Your task to perform on an android device: create a new album in the google photos Image 0: 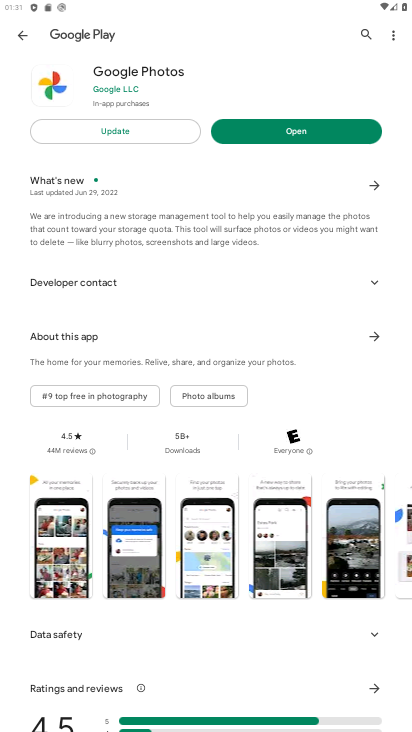
Step 0: press home button
Your task to perform on an android device: create a new album in the google photos Image 1: 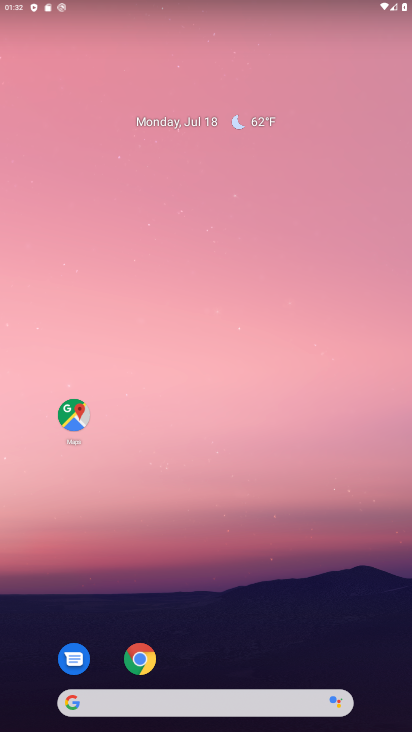
Step 1: drag from (286, 609) to (220, 199)
Your task to perform on an android device: create a new album in the google photos Image 2: 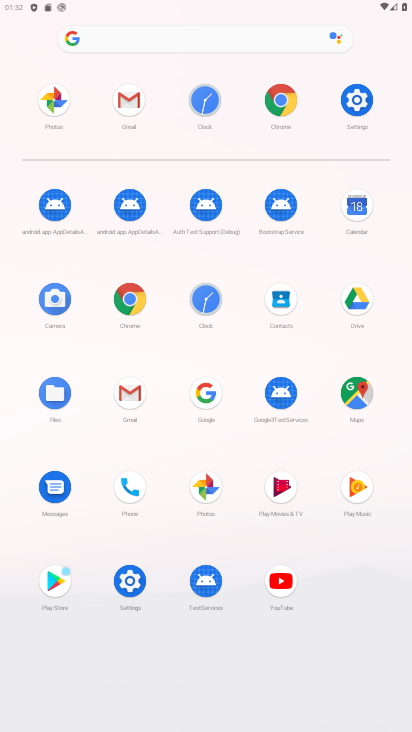
Step 2: click (185, 488)
Your task to perform on an android device: create a new album in the google photos Image 3: 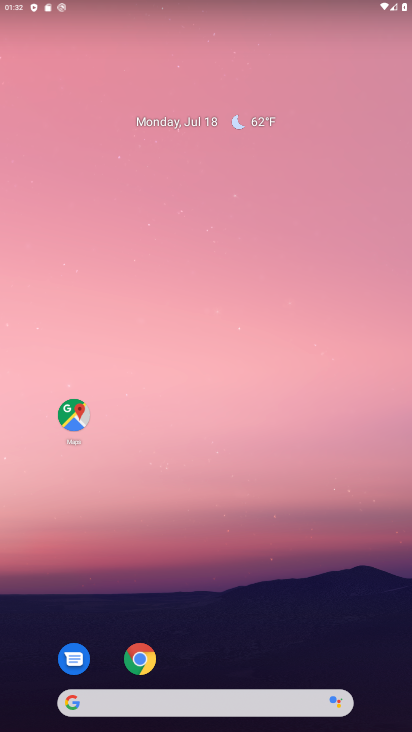
Step 3: drag from (263, 533) to (224, 223)
Your task to perform on an android device: create a new album in the google photos Image 4: 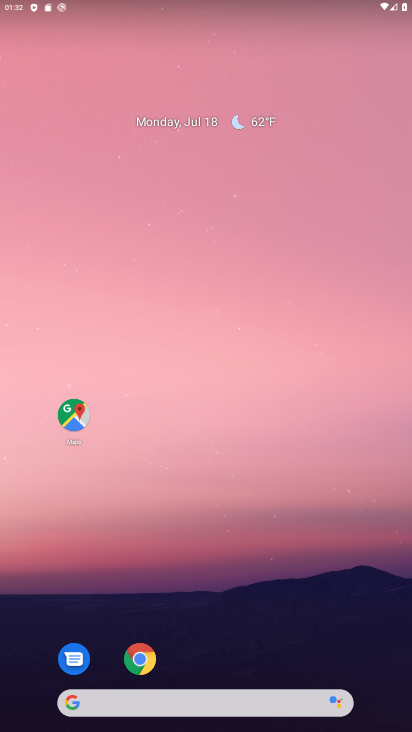
Step 4: drag from (308, 558) to (273, 67)
Your task to perform on an android device: create a new album in the google photos Image 5: 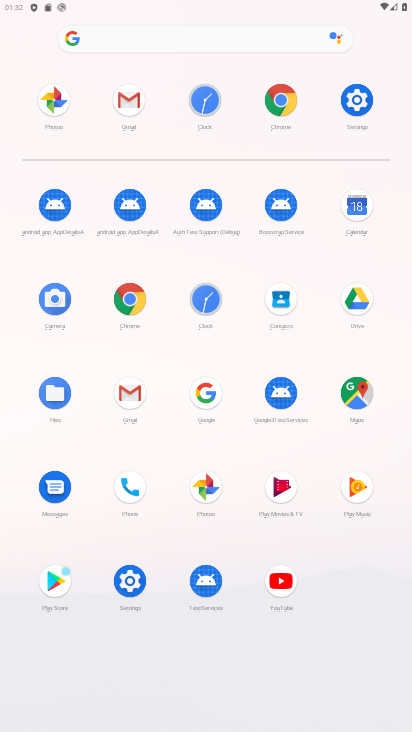
Step 5: click (210, 483)
Your task to perform on an android device: create a new album in the google photos Image 6: 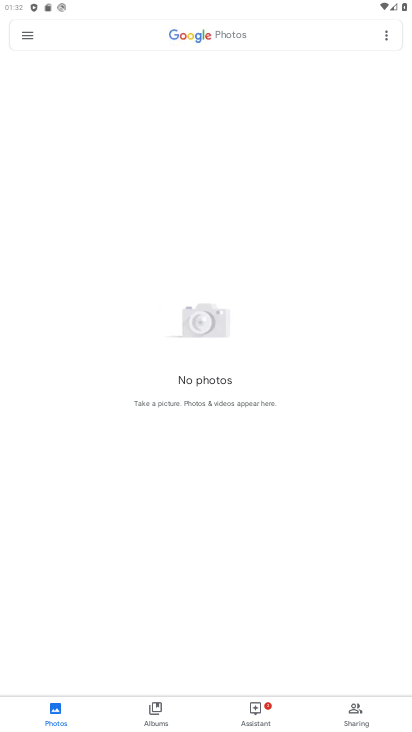
Step 6: click (168, 718)
Your task to perform on an android device: create a new album in the google photos Image 7: 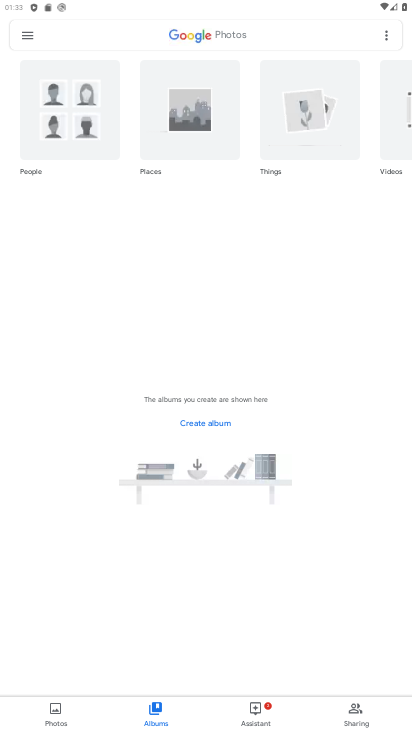
Step 7: click (192, 425)
Your task to perform on an android device: create a new album in the google photos Image 8: 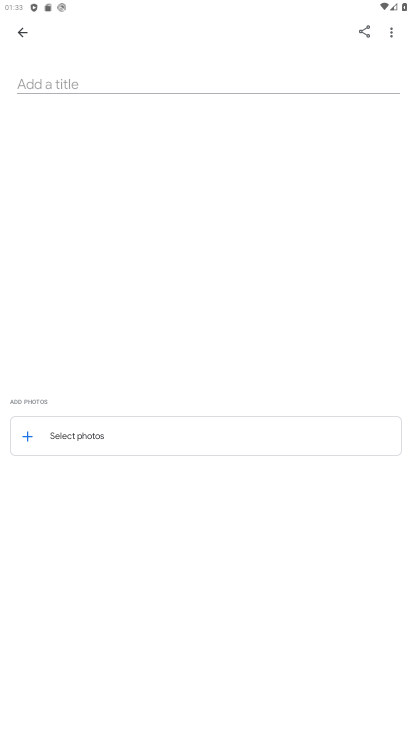
Step 8: click (168, 77)
Your task to perform on an android device: create a new album in the google photos Image 9: 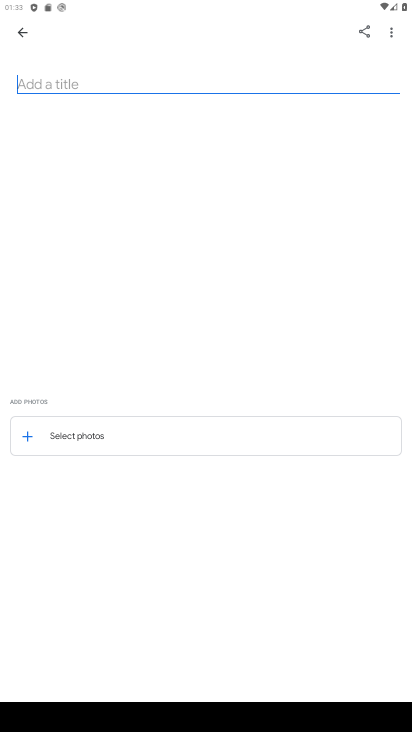
Step 9: type "hame allow"
Your task to perform on an android device: create a new album in the google photos Image 10: 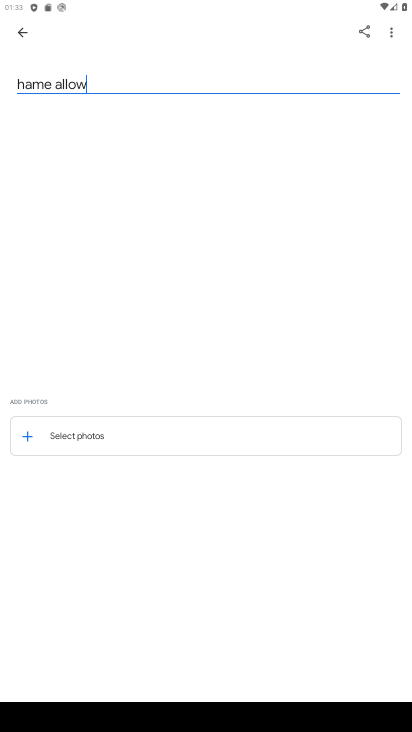
Step 10: click (88, 431)
Your task to perform on an android device: create a new album in the google photos Image 11: 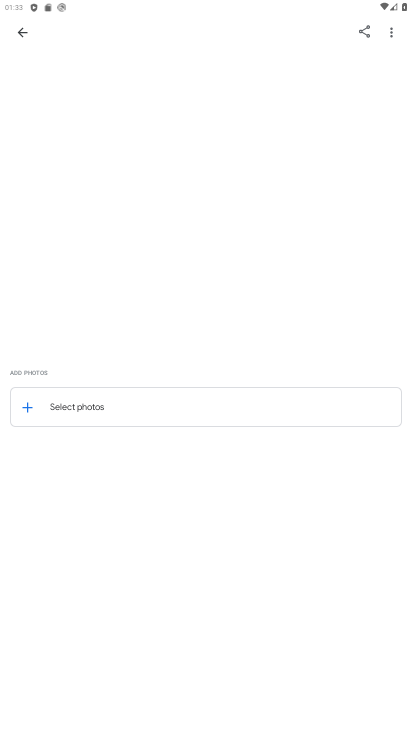
Step 11: click (88, 417)
Your task to perform on an android device: create a new album in the google photos Image 12: 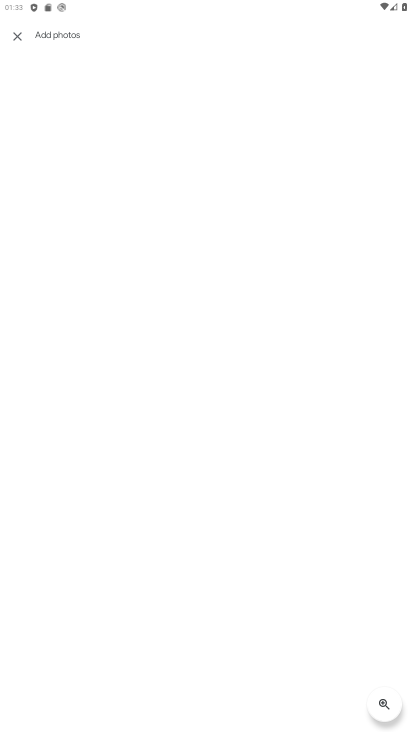
Step 12: click (17, 35)
Your task to perform on an android device: create a new album in the google photos Image 13: 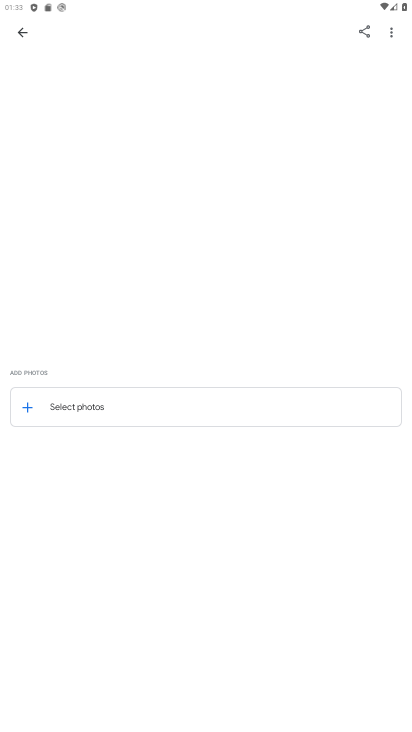
Step 13: click (393, 28)
Your task to perform on an android device: create a new album in the google photos Image 14: 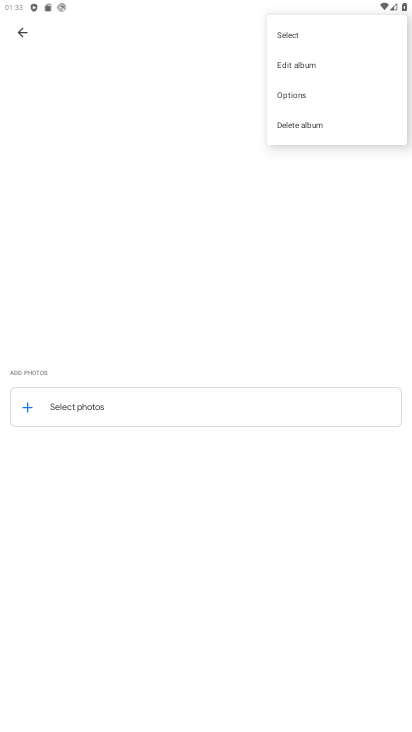
Step 14: click (309, 41)
Your task to perform on an android device: create a new album in the google photos Image 15: 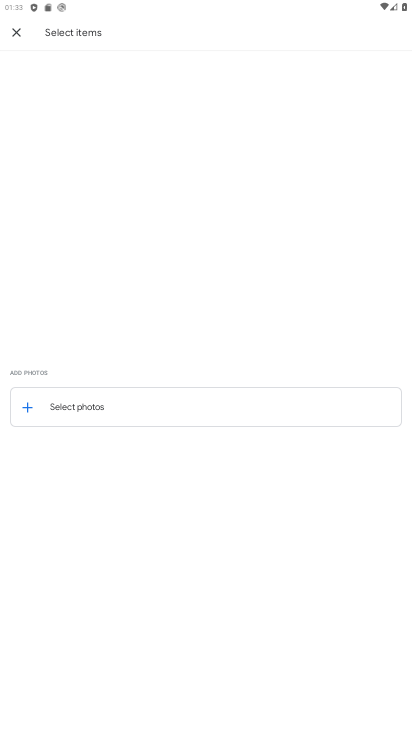
Step 15: task complete